Your task to perform on an android device: Open the phone app and click the voicemail tab. Image 0: 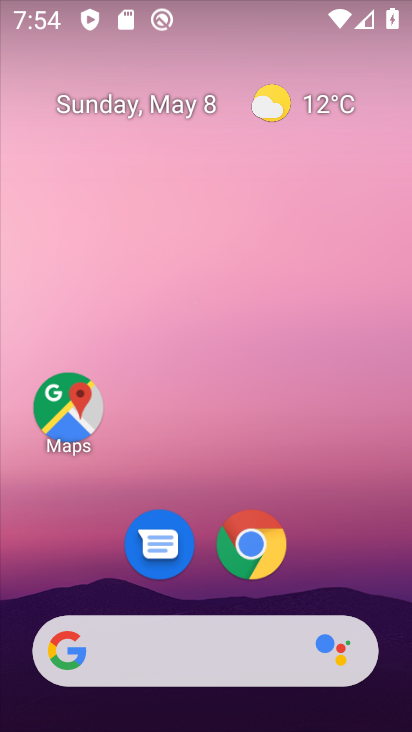
Step 0: drag from (345, 503) to (186, 37)
Your task to perform on an android device: Open the phone app and click the voicemail tab. Image 1: 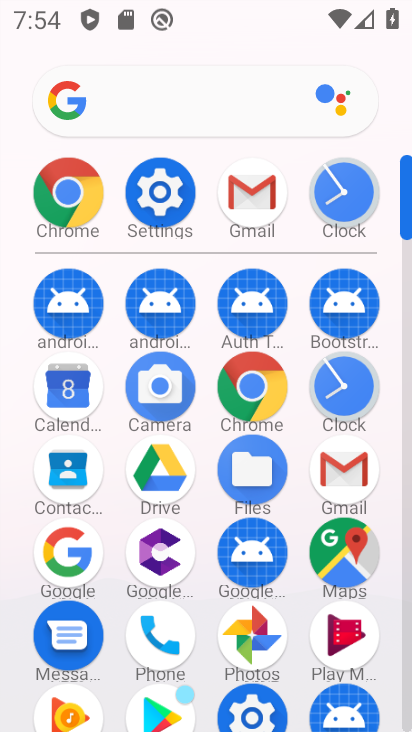
Step 1: click (409, 629)
Your task to perform on an android device: Open the phone app and click the voicemail tab. Image 2: 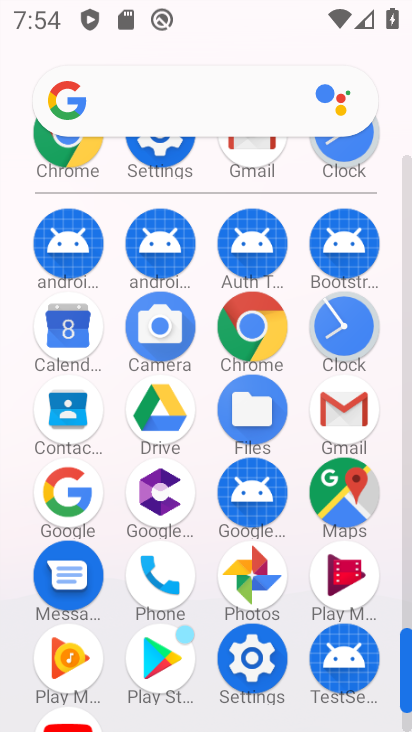
Step 2: click (162, 573)
Your task to perform on an android device: Open the phone app and click the voicemail tab. Image 3: 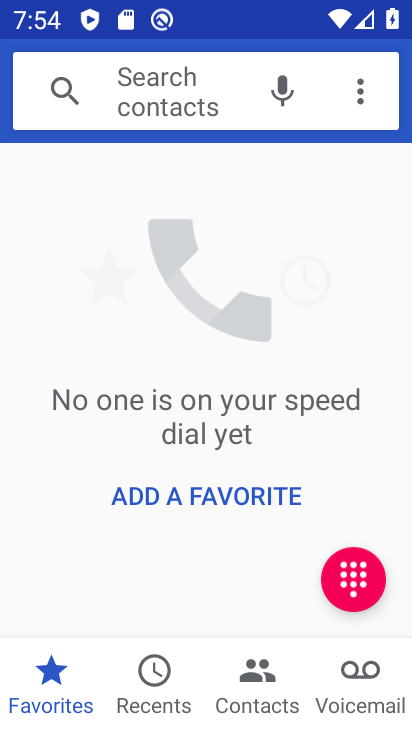
Step 3: click (354, 666)
Your task to perform on an android device: Open the phone app and click the voicemail tab. Image 4: 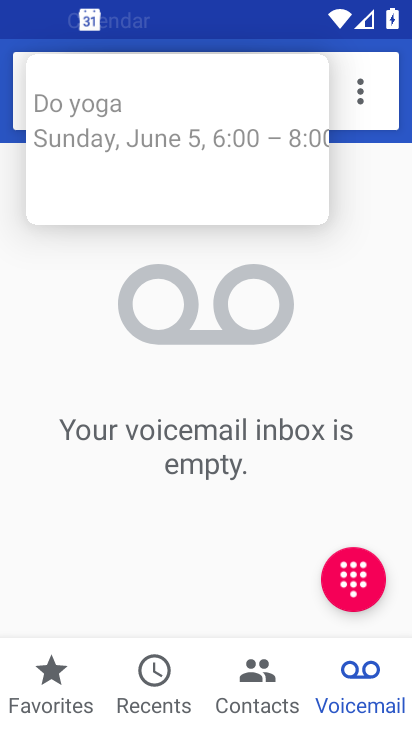
Step 4: task complete